Your task to perform on an android device: turn off javascript in the chrome app Image 0: 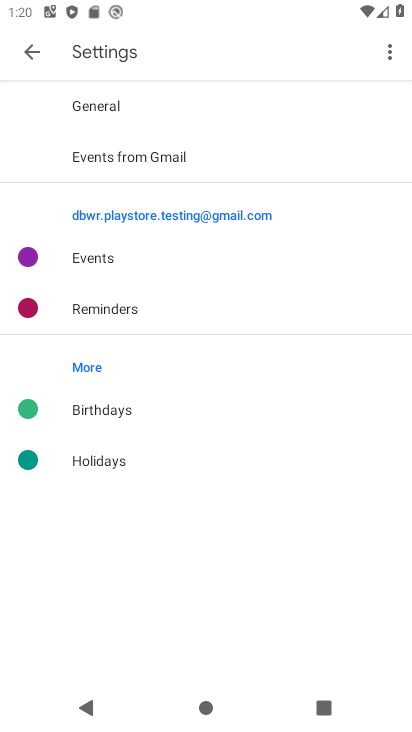
Step 0: press home button
Your task to perform on an android device: turn off javascript in the chrome app Image 1: 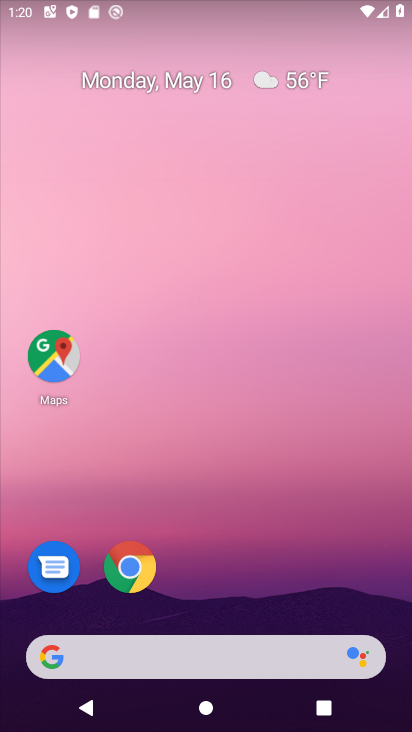
Step 1: click (145, 580)
Your task to perform on an android device: turn off javascript in the chrome app Image 2: 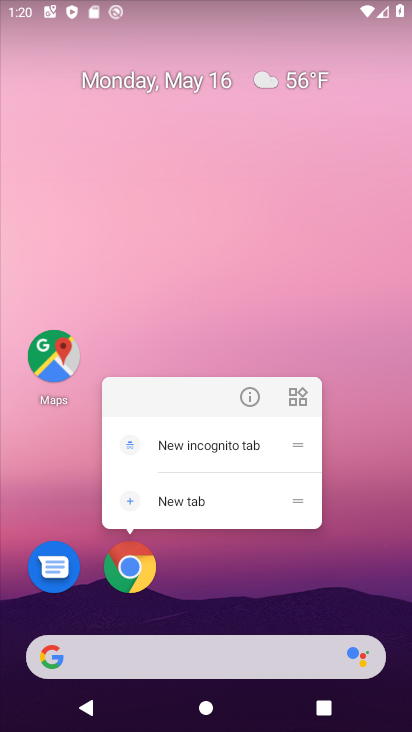
Step 2: click (136, 568)
Your task to perform on an android device: turn off javascript in the chrome app Image 3: 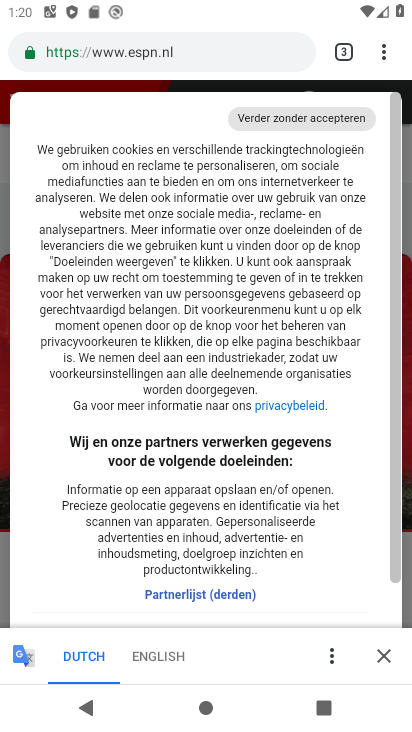
Step 3: drag from (391, 49) to (277, 611)
Your task to perform on an android device: turn off javascript in the chrome app Image 4: 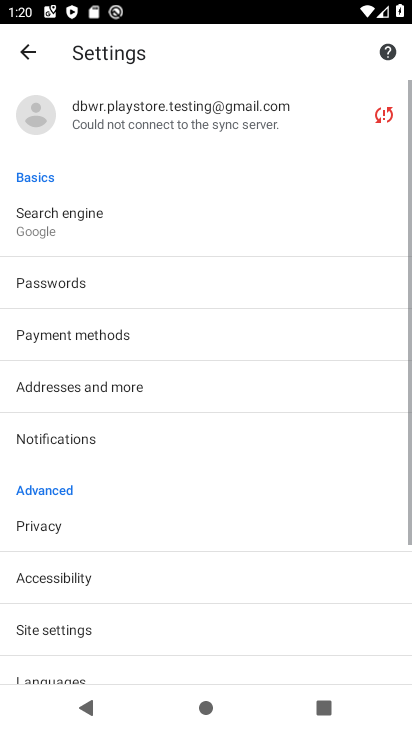
Step 4: drag from (114, 575) to (181, 292)
Your task to perform on an android device: turn off javascript in the chrome app Image 5: 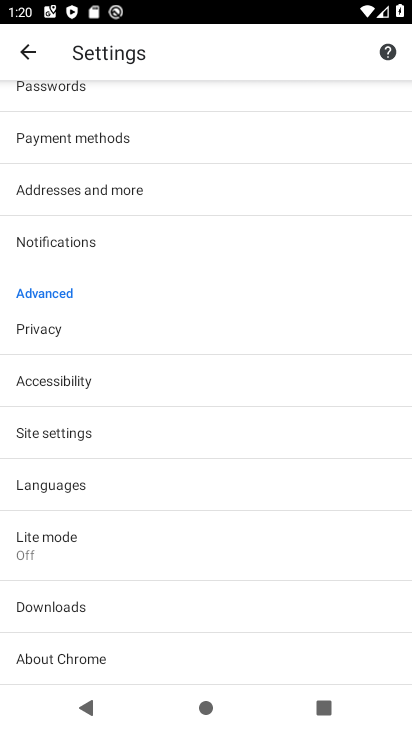
Step 5: click (115, 437)
Your task to perform on an android device: turn off javascript in the chrome app Image 6: 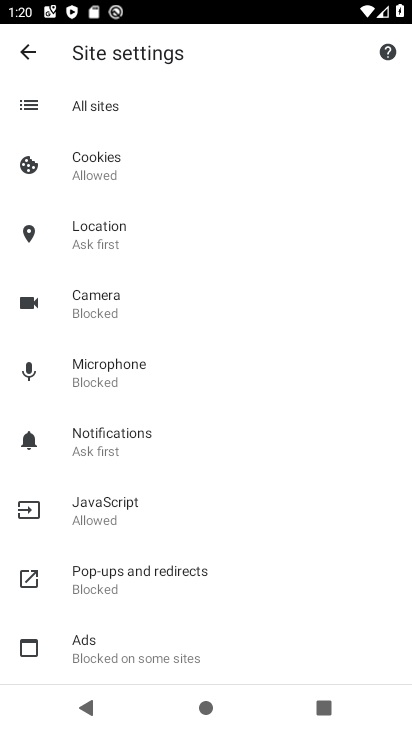
Step 6: click (139, 507)
Your task to perform on an android device: turn off javascript in the chrome app Image 7: 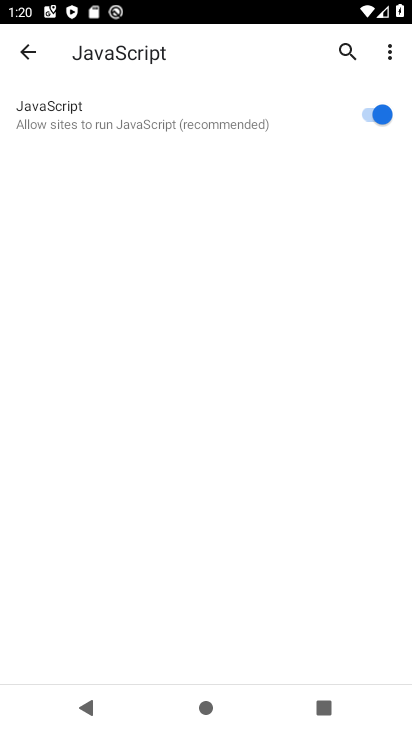
Step 7: click (374, 117)
Your task to perform on an android device: turn off javascript in the chrome app Image 8: 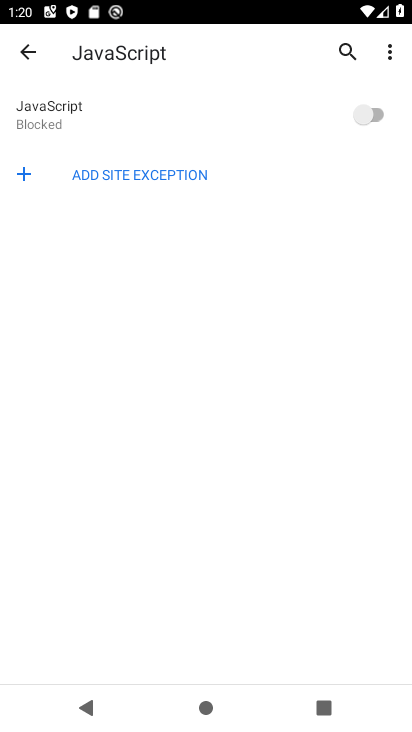
Step 8: task complete